Your task to perform on an android device: delete browsing data in the chrome app Image 0: 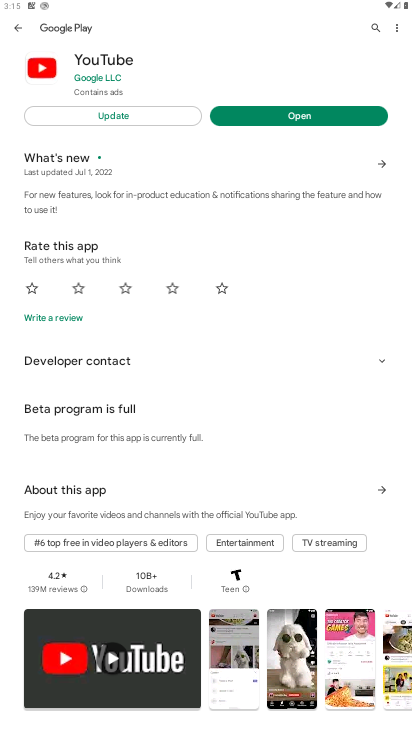
Step 0: press home button
Your task to perform on an android device: delete browsing data in the chrome app Image 1: 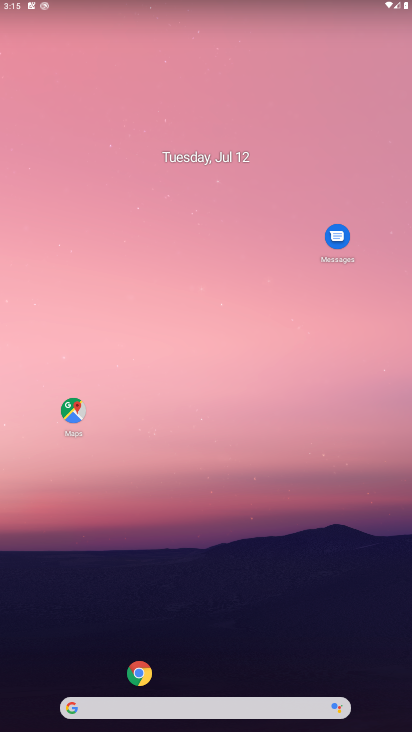
Step 1: click (141, 676)
Your task to perform on an android device: delete browsing data in the chrome app Image 2: 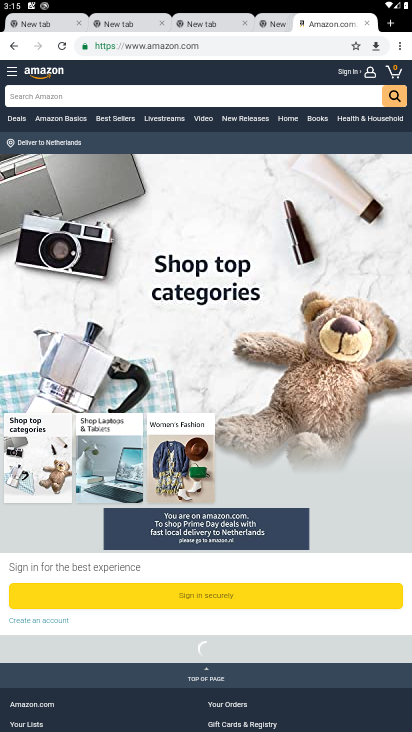
Step 2: click (398, 41)
Your task to perform on an android device: delete browsing data in the chrome app Image 3: 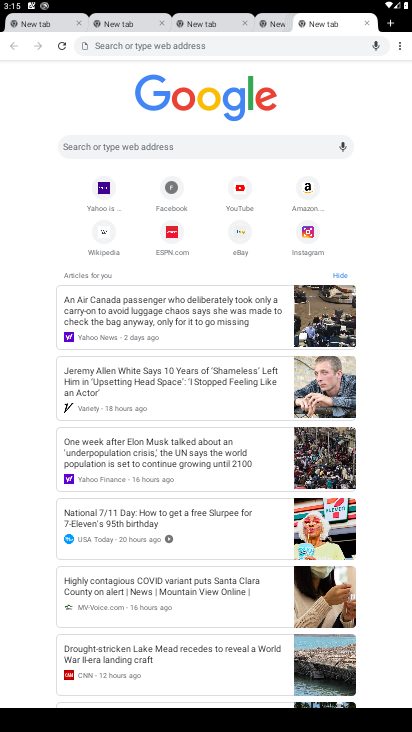
Step 3: click (389, 41)
Your task to perform on an android device: delete browsing data in the chrome app Image 4: 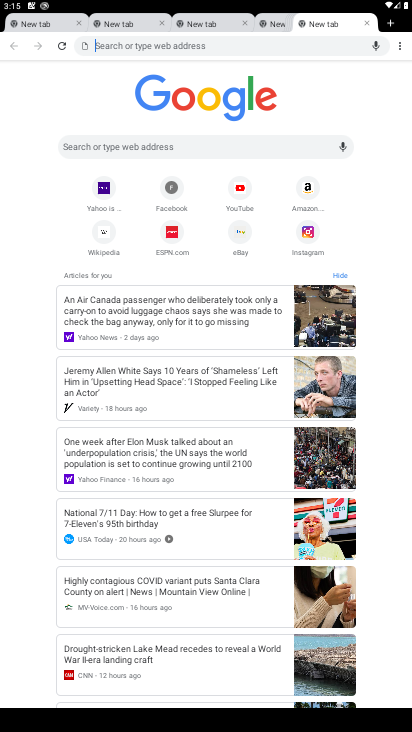
Step 4: click (393, 42)
Your task to perform on an android device: delete browsing data in the chrome app Image 5: 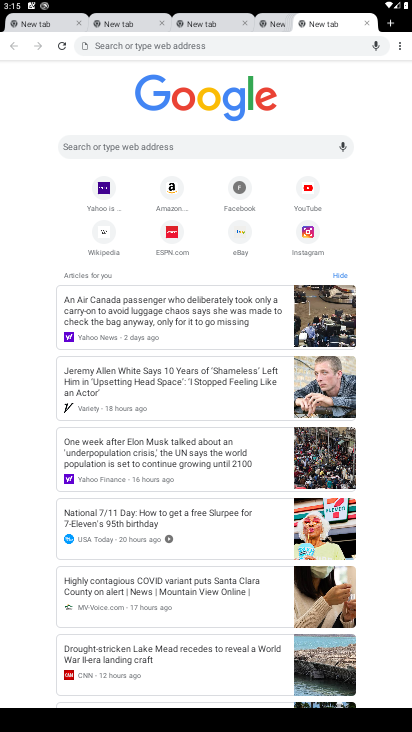
Step 5: click (398, 43)
Your task to perform on an android device: delete browsing data in the chrome app Image 6: 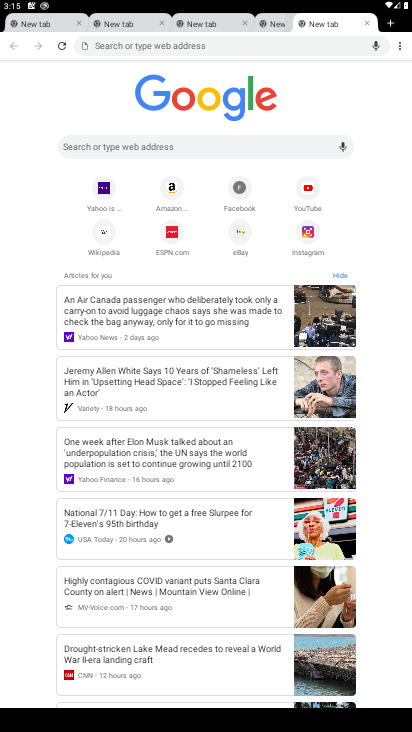
Step 6: task complete